Your task to perform on an android device: set an alarm Image 0: 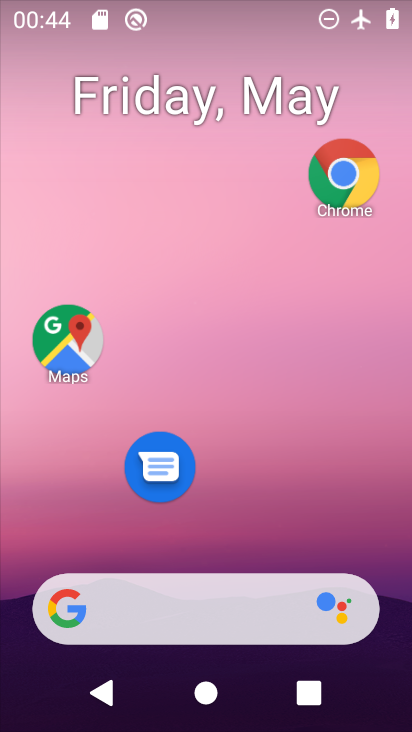
Step 0: drag from (266, 532) to (236, 138)
Your task to perform on an android device: set an alarm Image 1: 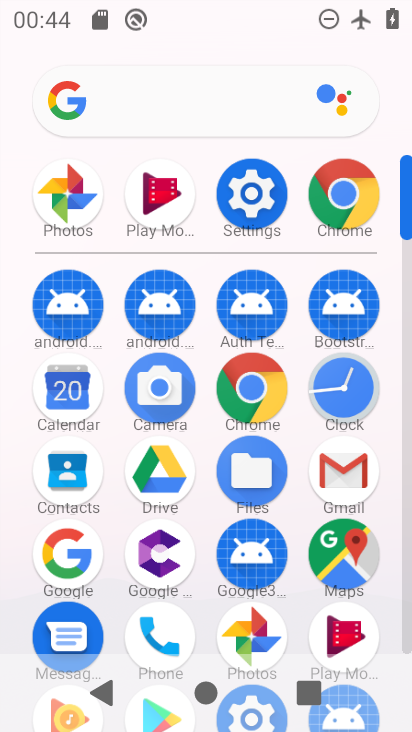
Step 1: click (351, 390)
Your task to perform on an android device: set an alarm Image 2: 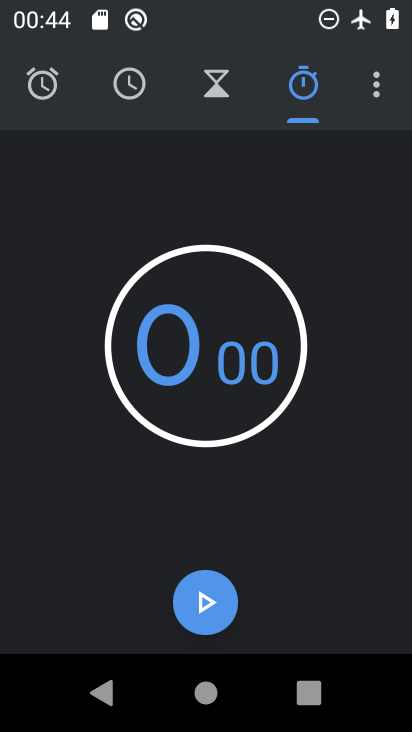
Step 2: click (42, 74)
Your task to perform on an android device: set an alarm Image 3: 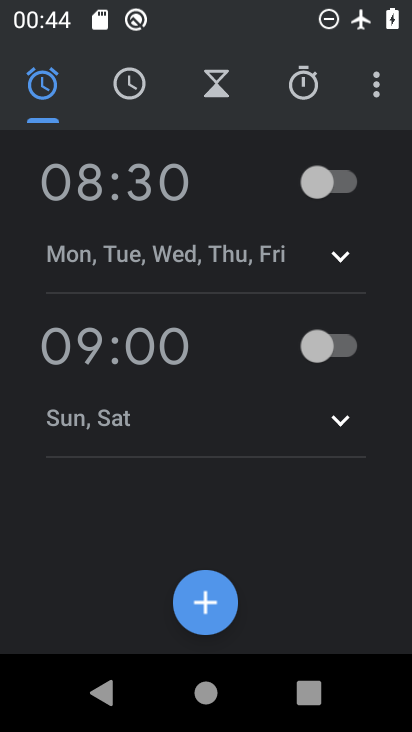
Step 3: click (343, 169)
Your task to perform on an android device: set an alarm Image 4: 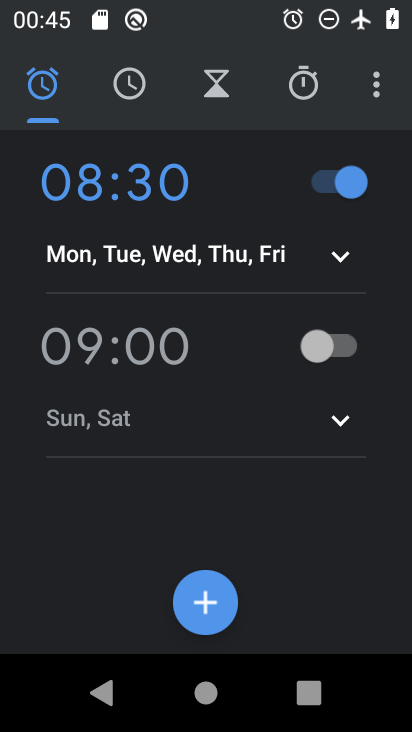
Step 4: task complete